Your task to perform on an android device: toggle pop-ups in chrome Image 0: 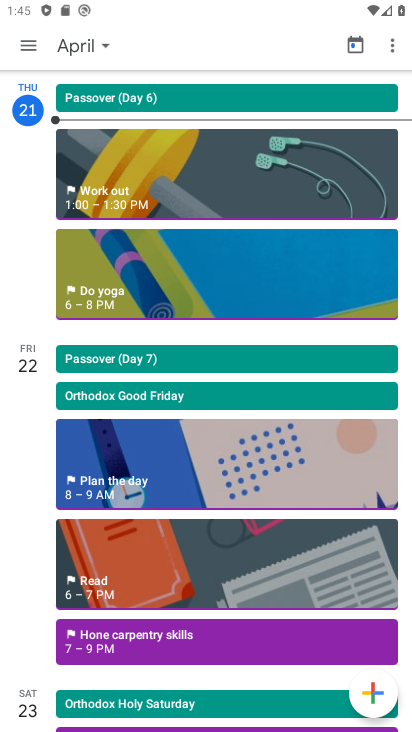
Step 0: press home button
Your task to perform on an android device: toggle pop-ups in chrome Image 1: 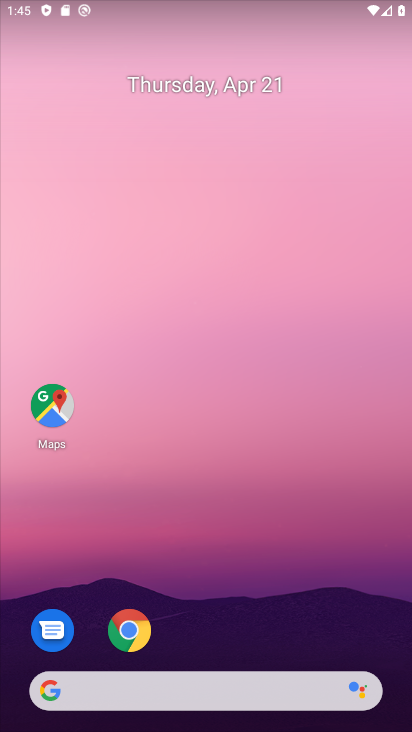
Step 1: click (136, 630)
Your task to perform on an android device: toggle pop-ups in chrome Image 2: 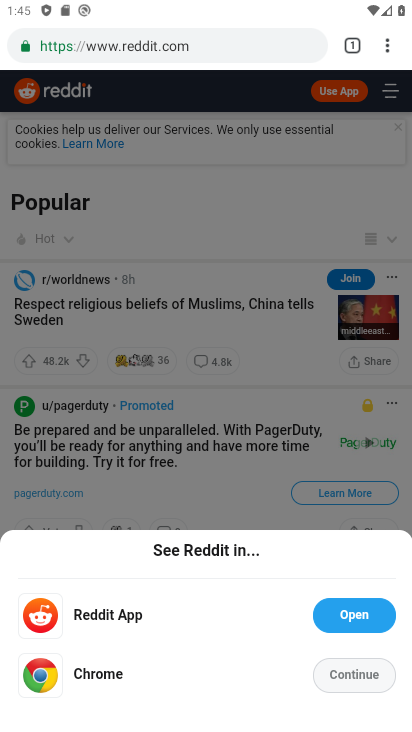
Step 2: click (386, 47)
Your task to perform on an android device: toggle pop-ups in chrome Image 3: 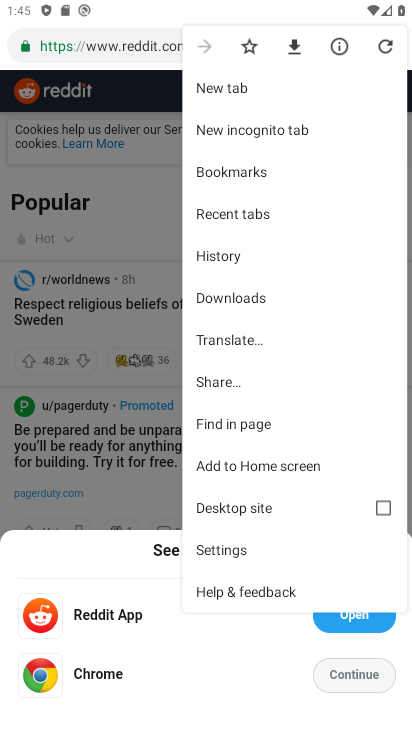
Step 3: click (228, 547)
Your task to perform on an android device: toggle pop-ups in chrome Image 4: 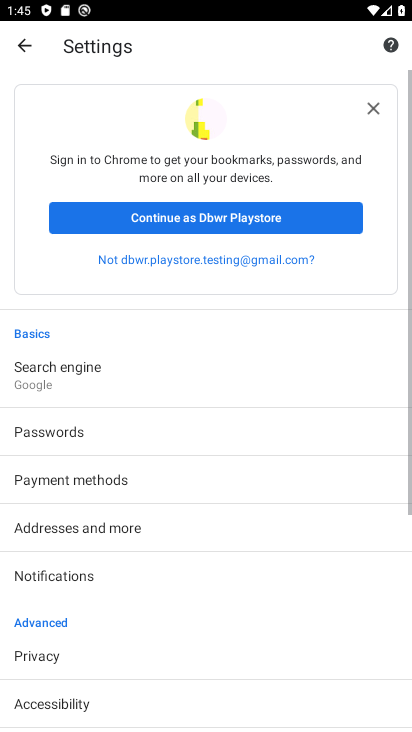
Step 4: drag from (170, 542) to (163, 164)
Your task to perform on an android device: toggle pop-ups in chrome Image 5: 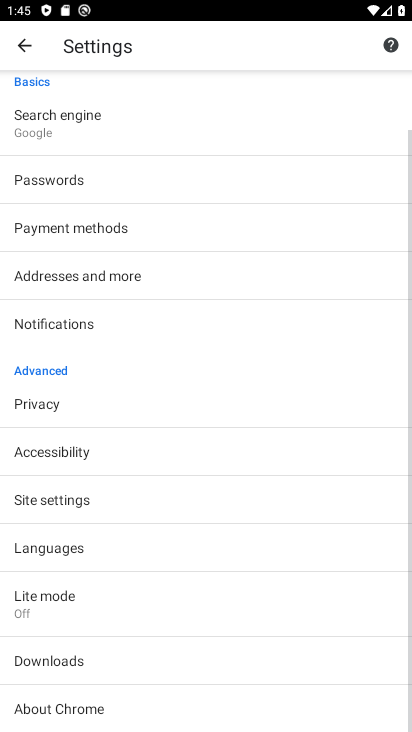
Step 5: click (64, 499)
Your task to perform on an android device: toggle pop-ups in chrome Image 6: 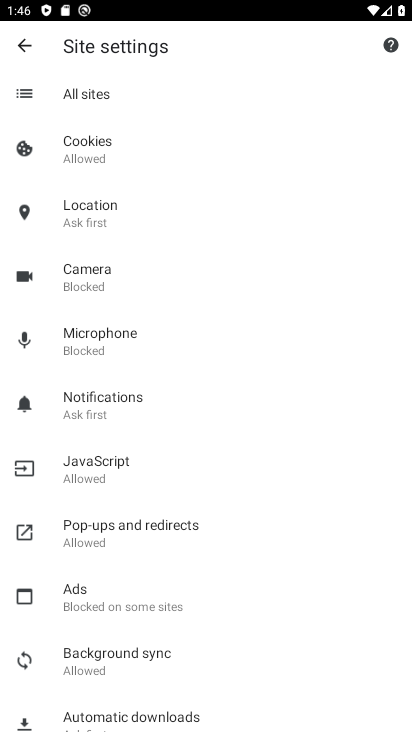
Step 6: click (124, 535)
Your task to perform on an android device: toggle pop-ups in chrome Image 7: 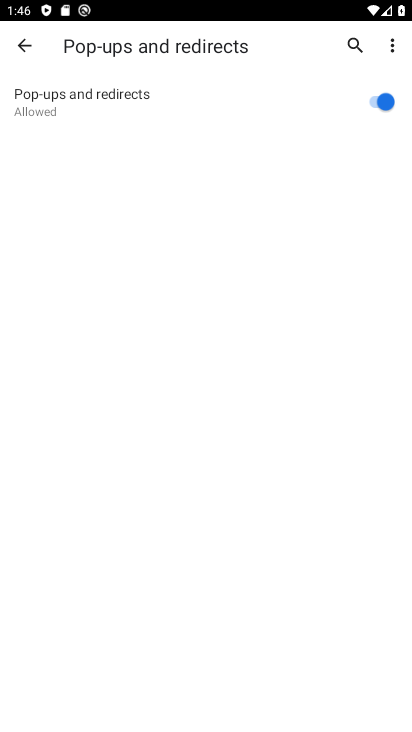
Step 7: click (385, 96)
Your task to perform on an android device: toggle pop-ups in chrome Image 8: 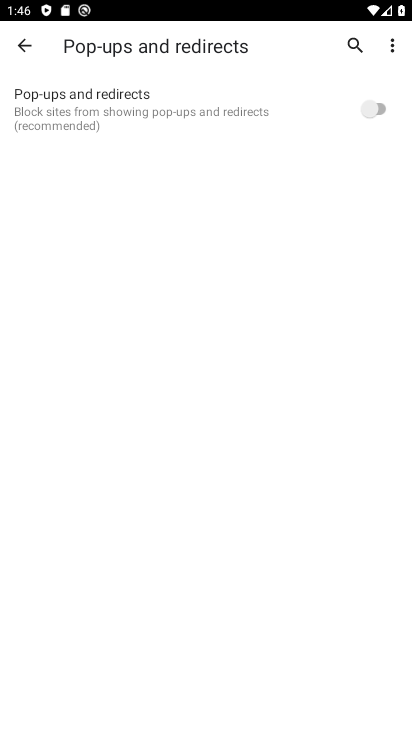
Step 8: task complete